Your task to perform on an android device: turn on wifi Image 0: 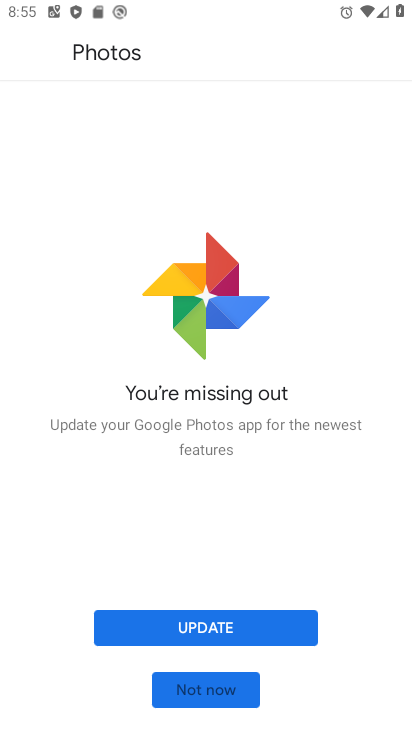
Step 0: drag from (314, 4) to (296, 642)
Your task to perform on an android device: turn on wifi Image 1: 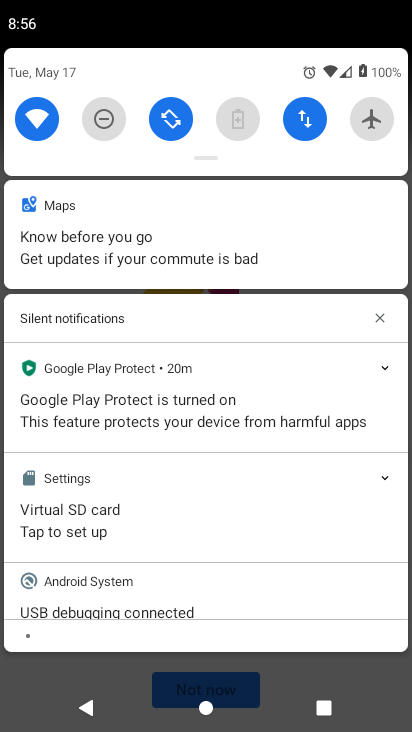
Step 1: task complete